Your task to perform on an android device: Is it going to rain today? Image 0: 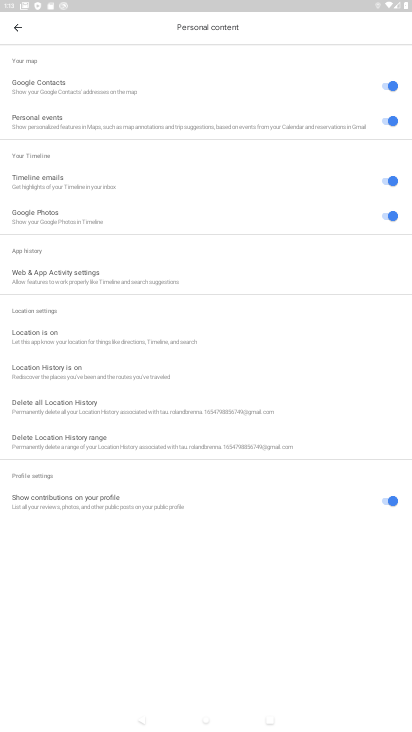
Step 0: press home button
Your task to perform on an android device: Is it going to rain today? Image 1: 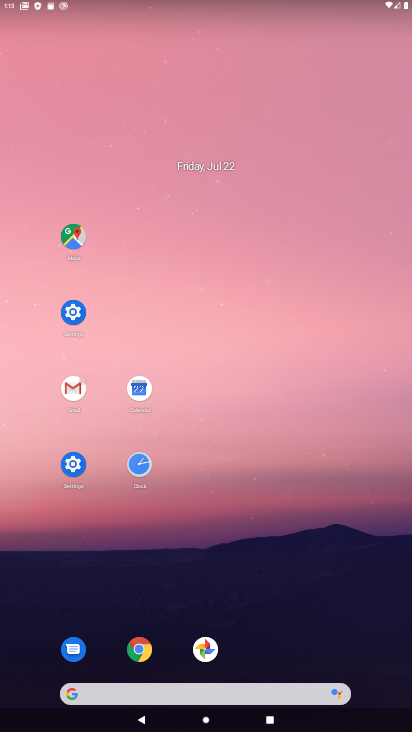
Step 1: click (190, 692)
Your task to perform on an android device: Is it going to rain today? Image 2: 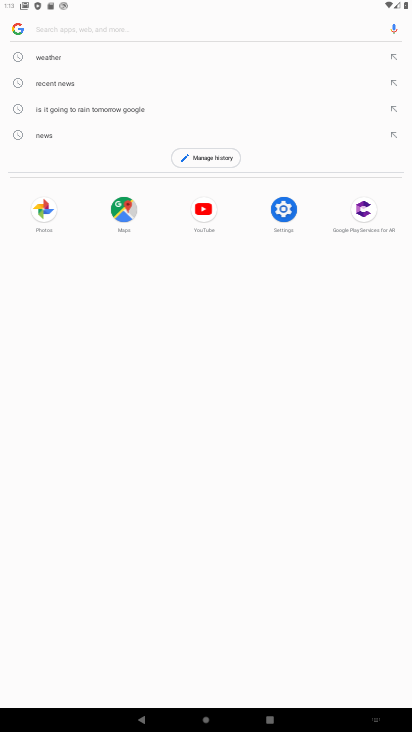
Step 2: click (44, 63)
Your task to perform on an android device: Is it going to rain today? Image 3: 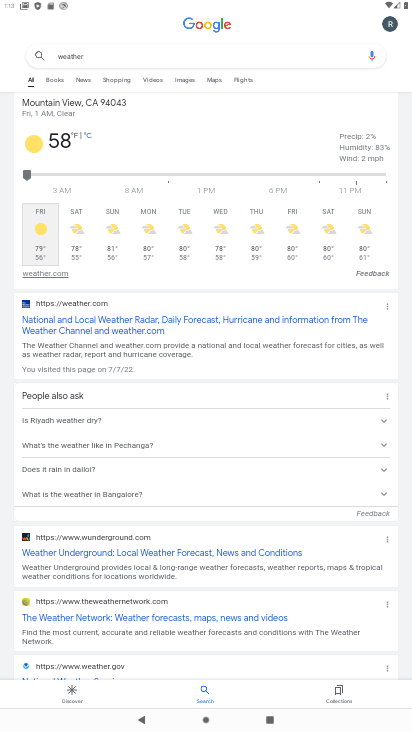
Step 3: click (39, 243)
Your task to perform on an android device: Is it going to rain today? Image 4: 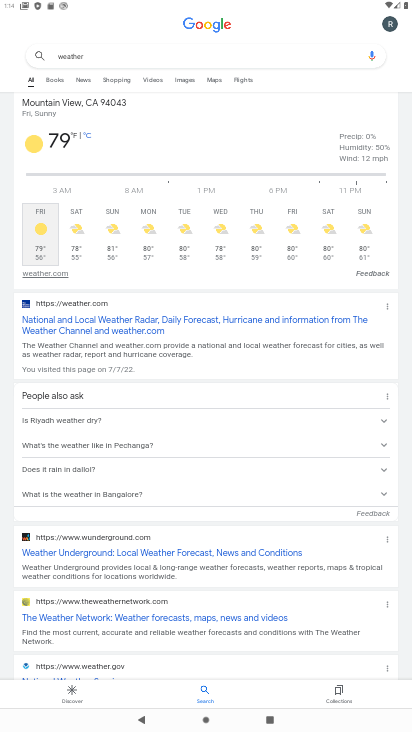
Step 4: task complete